Your task to perform on an android device: search for starred emails in the gmail app Image 0: 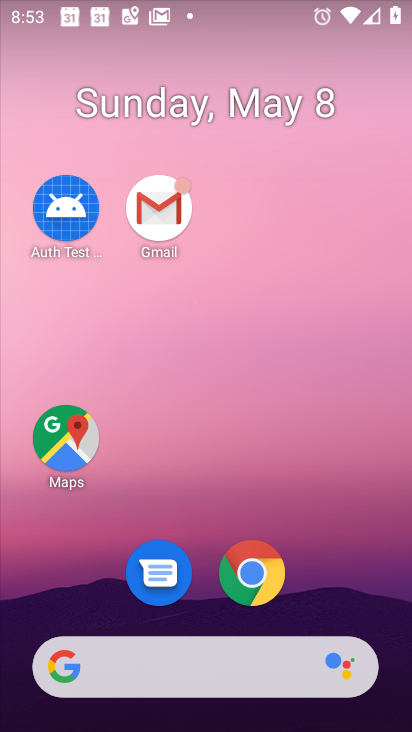
Step 0: click (388, 432)
Your task to perform on an android device: search for starred emails in the gmail app Image 1: 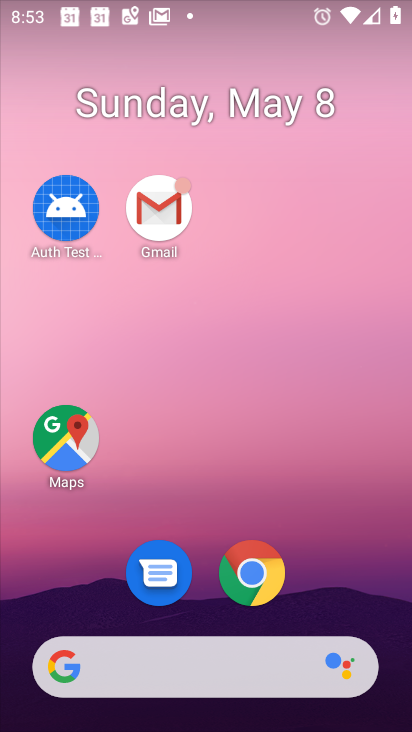
Step 1: drag from (345, 557) to (199, 32)
Your task to perform on an android device: search for starred emails in the gmail app Image 2: 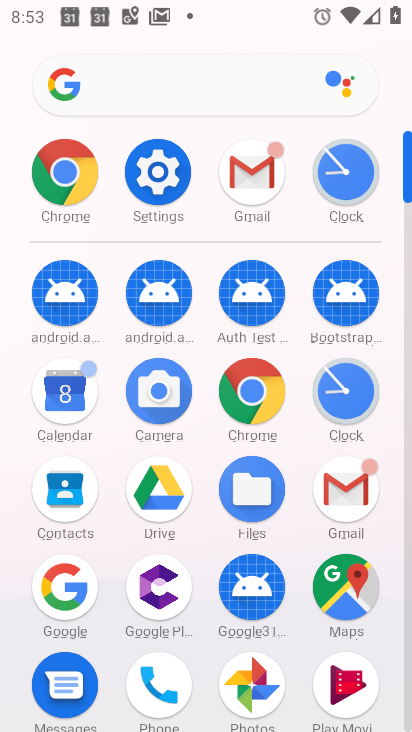
Step 2: click (347, 483)
Your task to perform on an android device: search for starred emails in the gmail app Image 3: 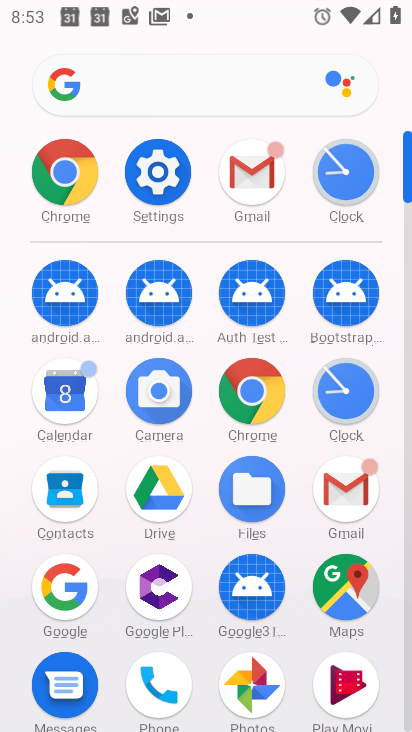
Step 3: click (347, 483)
Your task to perform on an android device: search for starred emails in the gmail app Image 4: 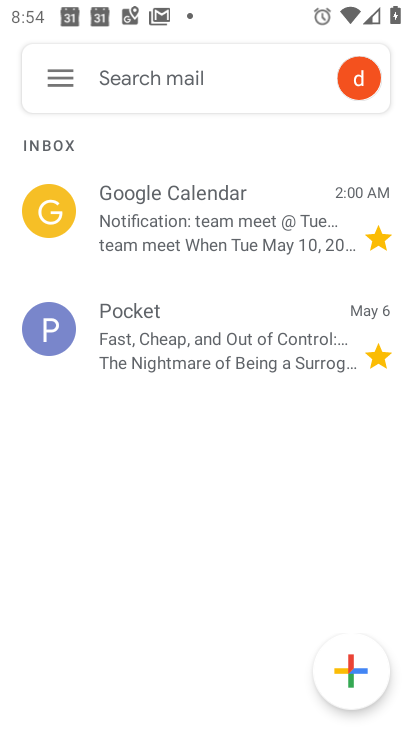
Step 4: click (160, 232)
Your task to perform on an android device: search for starred emails in the gmail app Image 5: 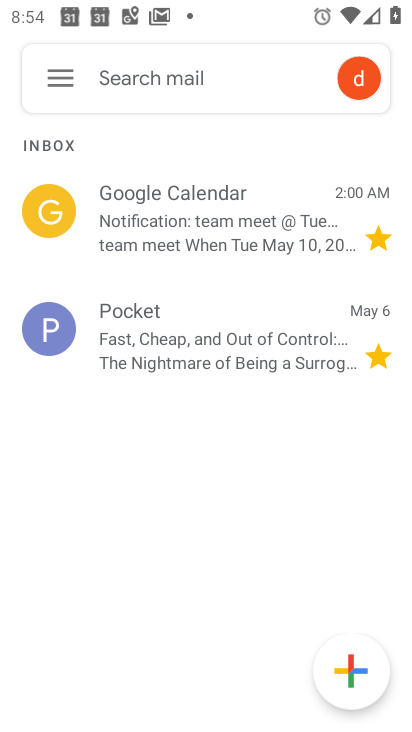
Step 5: click (159, 233)
Your task to perform on an android device: search for starred emails in the gmail app Image 6: 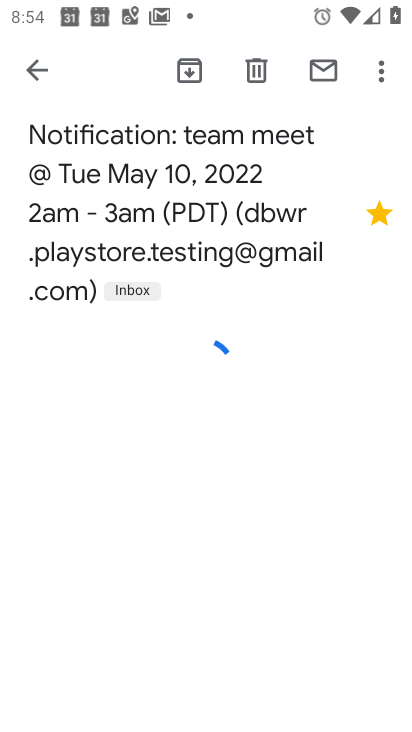
Step 6: click (159, 233)
Your task to perform on an android device: search for starred emails in the gmail app Image 7: 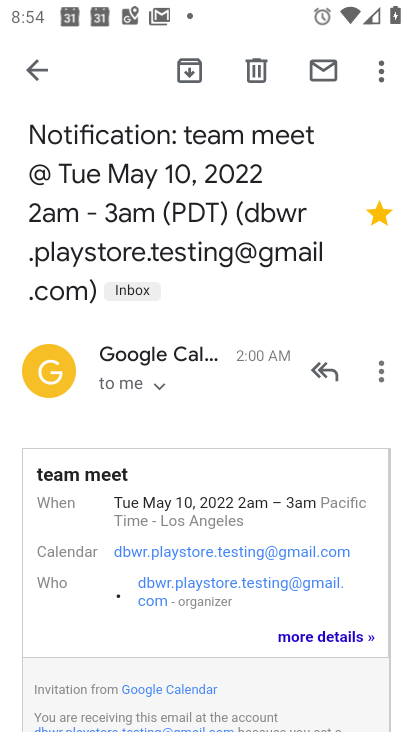
Step 7: task complete